Your task to perform on an android device: check storage Image 0: 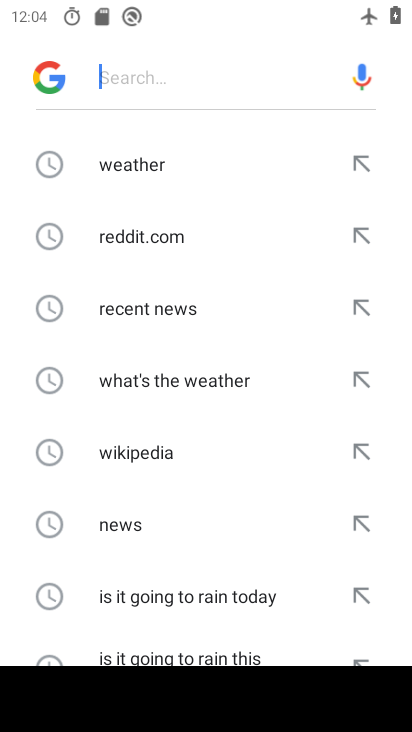
Step 0: press home button
Your task to perform on an android device: check storage Image 1: 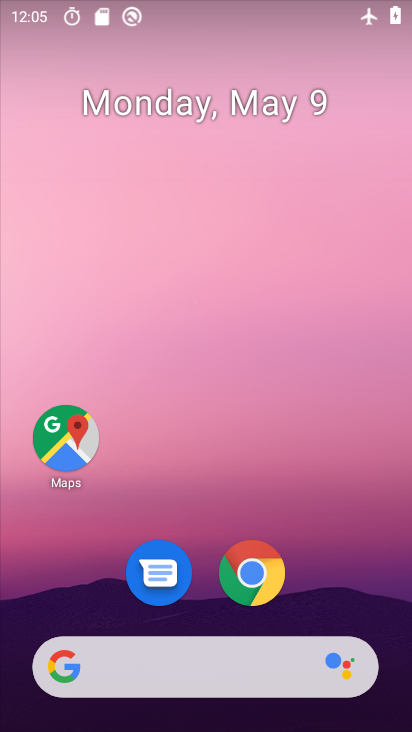
Step 1: drag from (227, 641) to (224, 299)
Your task to perform on an android device: check storage Image 2: 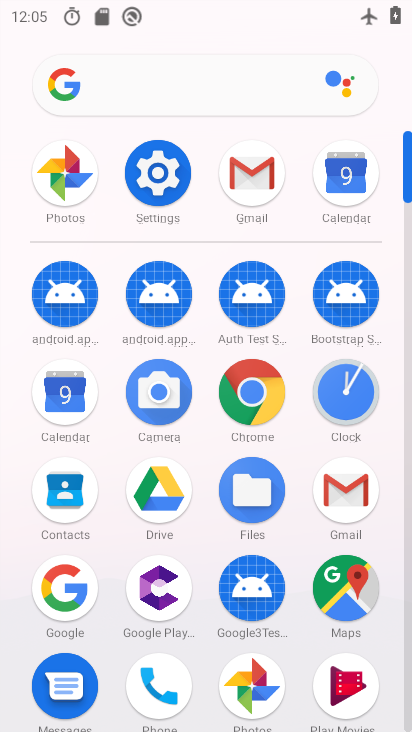
Step 2: click (147, 287)
Your task to perform on an android device: check storage Image 3: 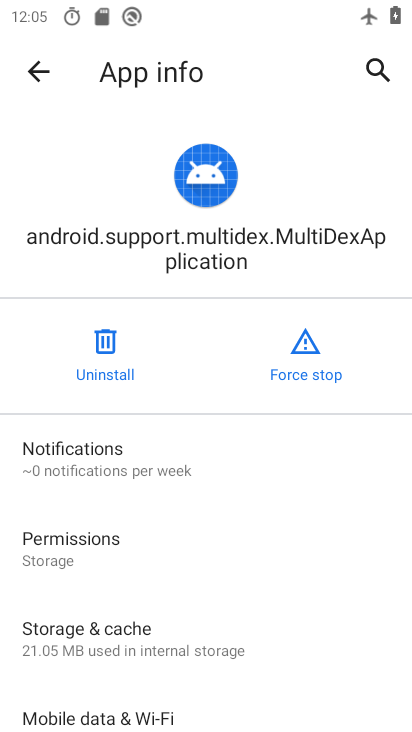
Step 3: click (44, 71)
Your task to perform on an android device: check storage Image 4: 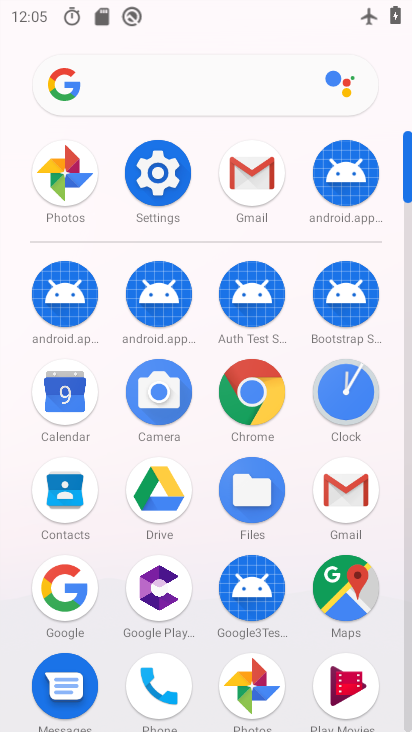
Step 4: click (157, 179)
Your task to perform on an android device: check storage Image 5: 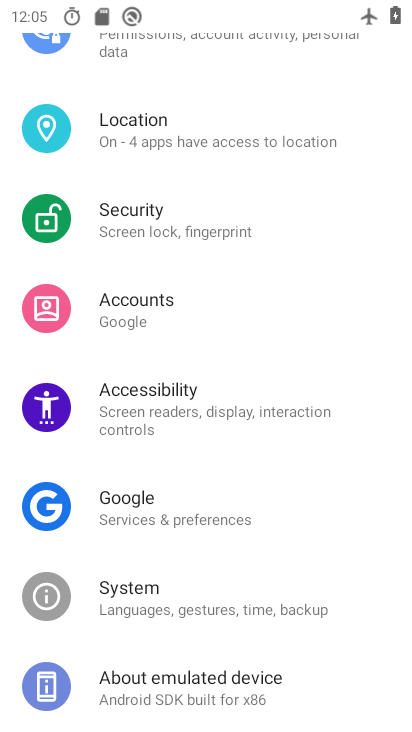
Step 5: drag from (168, 141) to (164, 520)
Your task to perform on an android device: check storage Image 6: 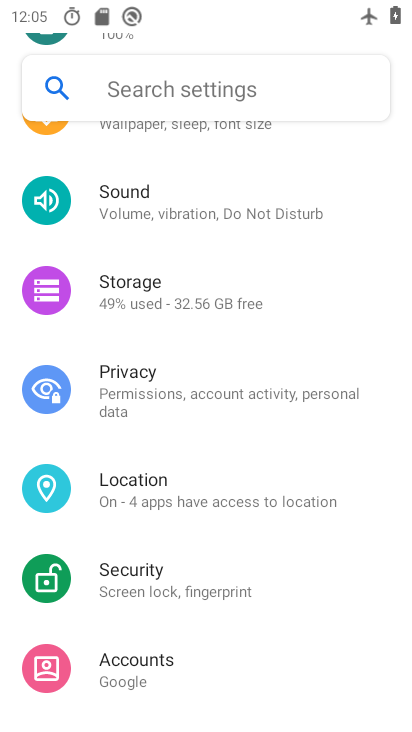
Step 6: click (152, 287)
Your task to perform on an android device: check storage Image 7: 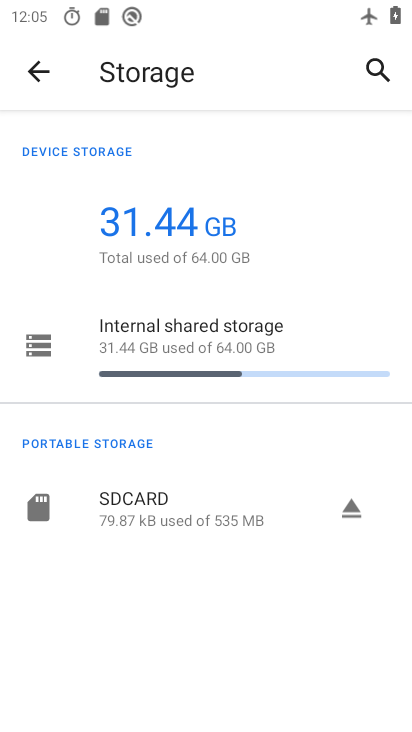
Step 7: task complete